Your task to perform on an android device: Open Chrome and go to the settings page Image 0: 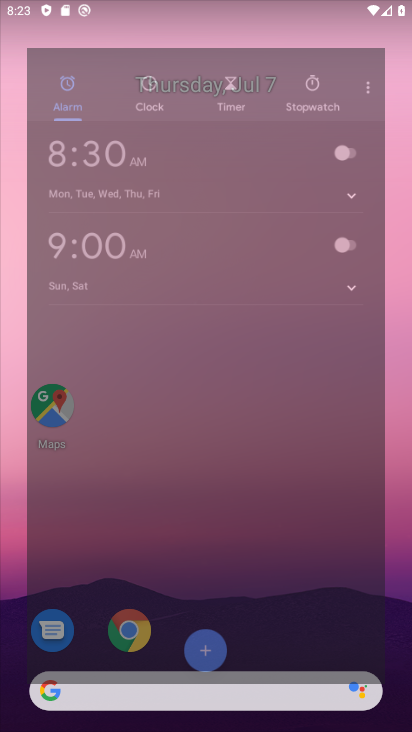
Step 0: drag from (249, 628) to (217, 61)
Your task to perform on an android device: Open Chrome and go to the settings page Image 1: 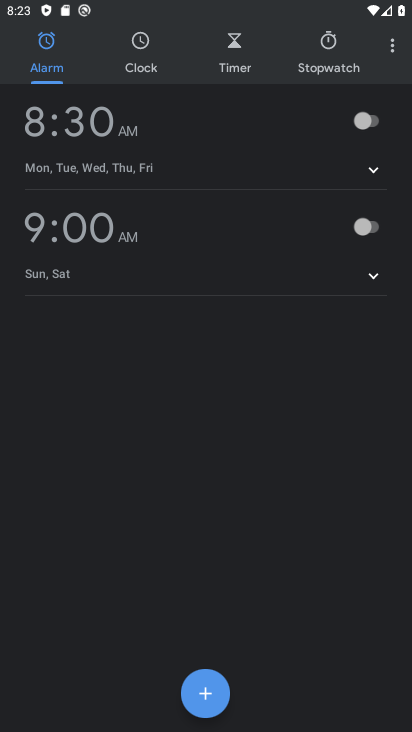
Step 1: press home button
Your task to perform on an android device: Open Chrome and go to the settings page Image 2: 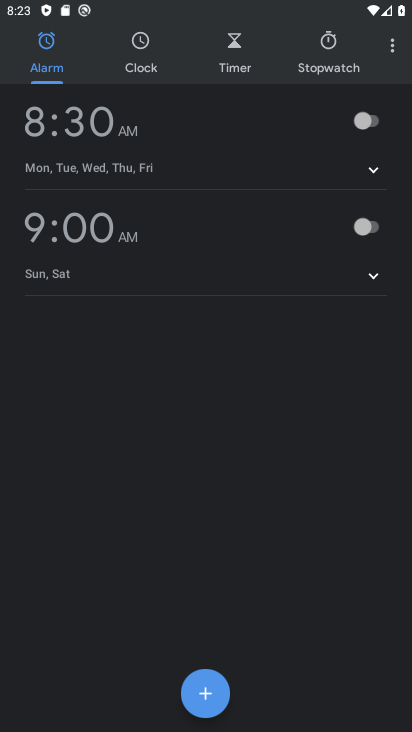
Step 2: drag from (217, 61) to (402, 557)
Your task to perform on an android device: Open Chrome and go to the settings page Image 3: 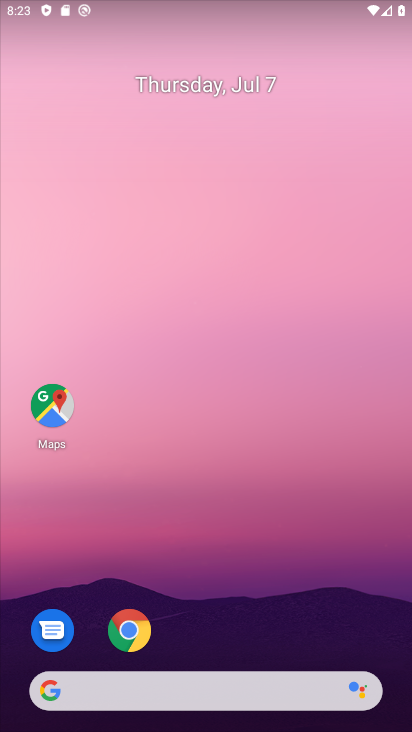
Step 3: click (128, 620)
Your task to perform on an android device: Open Chrome and go to the settings page Image 4: 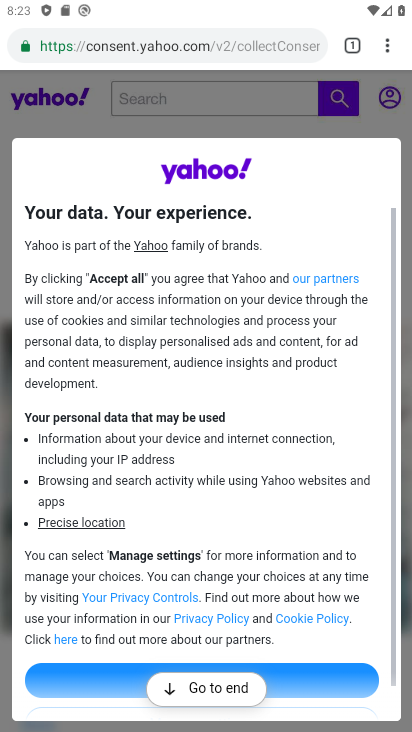
Step 4: click (388, 44)
Your task to perform on an android device: Open Chrome and go to the settings page Image 5: 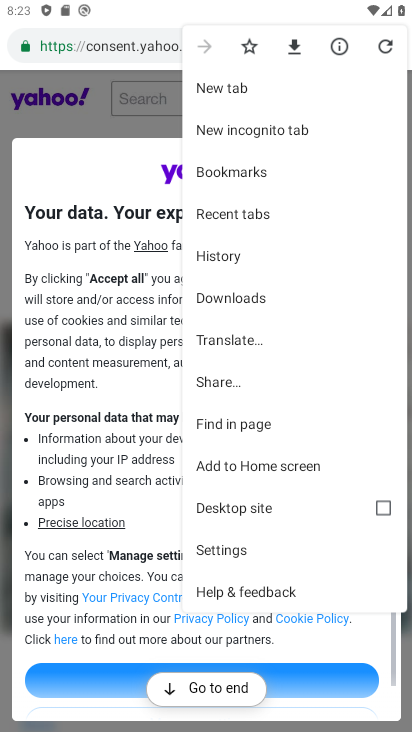
Step 5: click (285, 551)
Your task to perform on an android device: Open Chrome and go to the settings page Image 6: 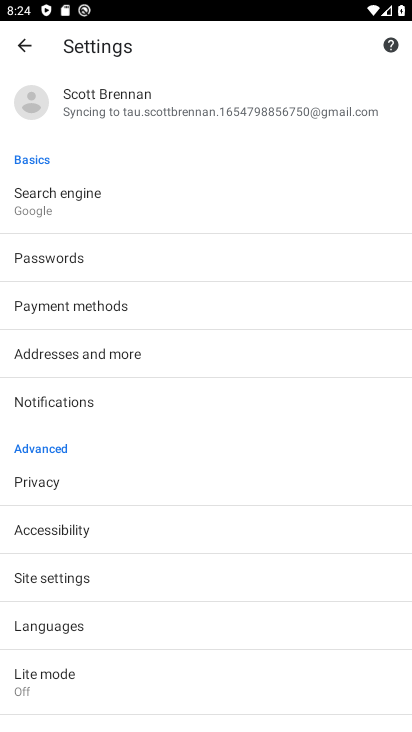
Step 6: task complete